Your task to perform on an android device: change the clock display to analog Image 0: 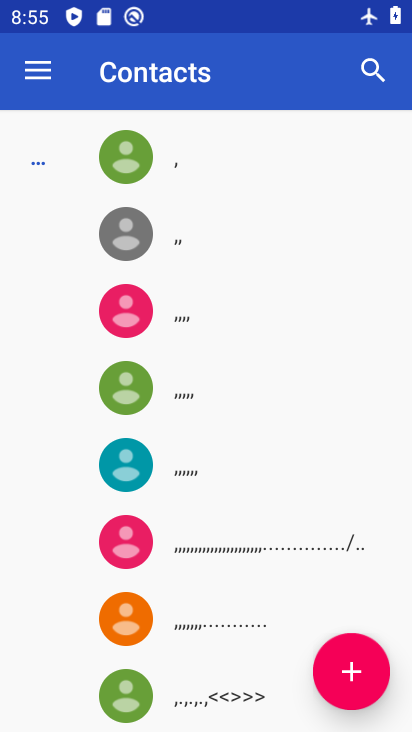
Step 0: press home button
Your task to perform on an android device: change the clock display to analog Image 1: 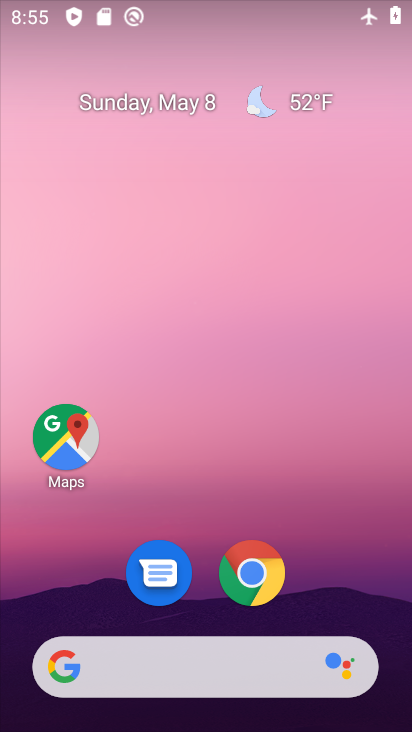
Step 1: drag from (224, 711) to (183, 208)
Your task to perform on an android device: change the clock display to analog Image 2: 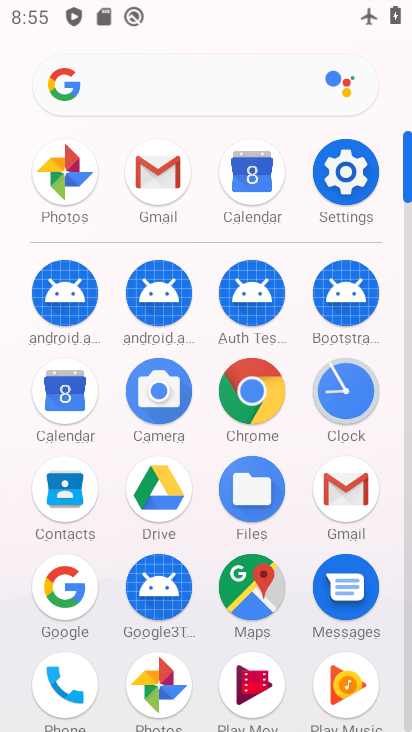
Step 2: click (352, 394)
Your task to perform on an android device: change the clock display to analog Image 3: 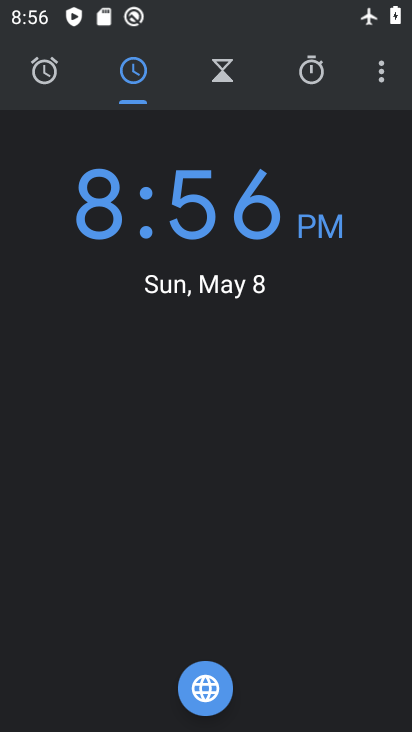
Step 3: click (383, 79)
Your task to perform on an android device: change the clock display to analog Image 4: 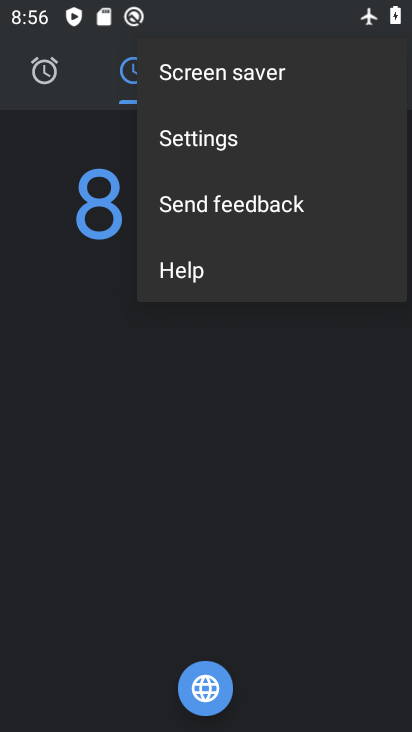
Step 4: click (221, 137)
Your task to perform on an android device: change the clock display to analog Image 5: 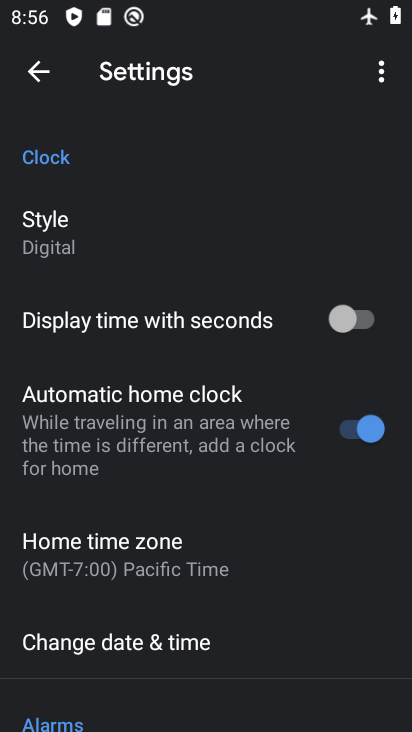
Step 5: click (55, 236)
Your task to perform on an android device: change the clock display to analog Image 6: 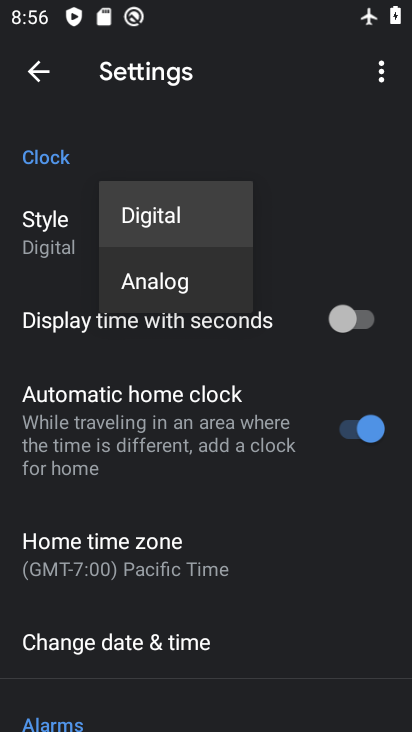
Step 6: click (154, 278)
Your task to perform on an android device: change the clock display to analog Image 7: 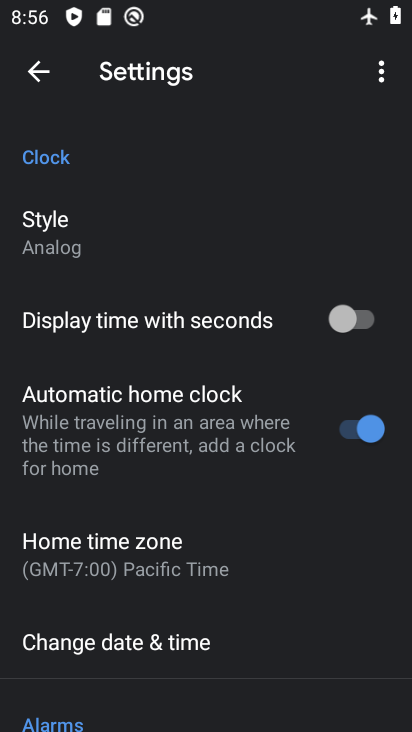
Step 7: task complete